Your task to perform on an android device: When is my next meeting? Image 0: 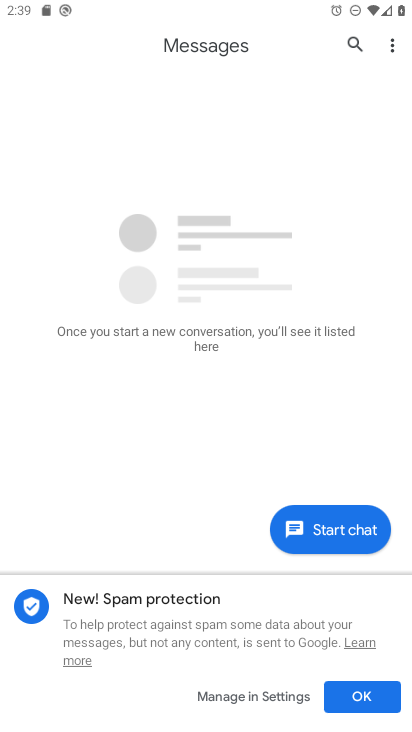
Step 0: press home button
Your task to perform on an android device: When is my next meeting? Image 1: 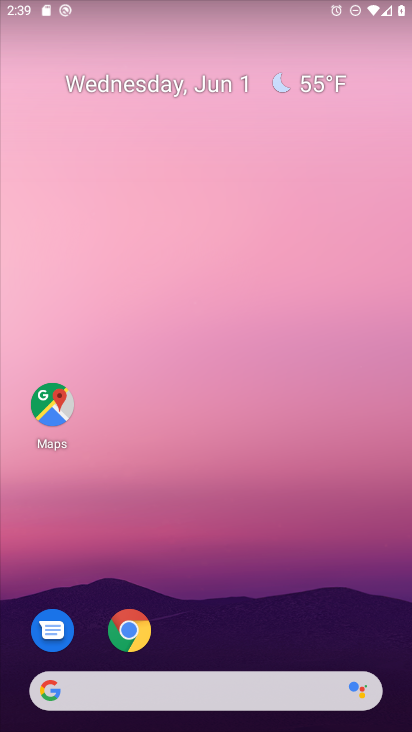
Step 1: drag from (325, 650) to (255, 39)
Your task to perform on an android device: When is my next meeting? Image 2: 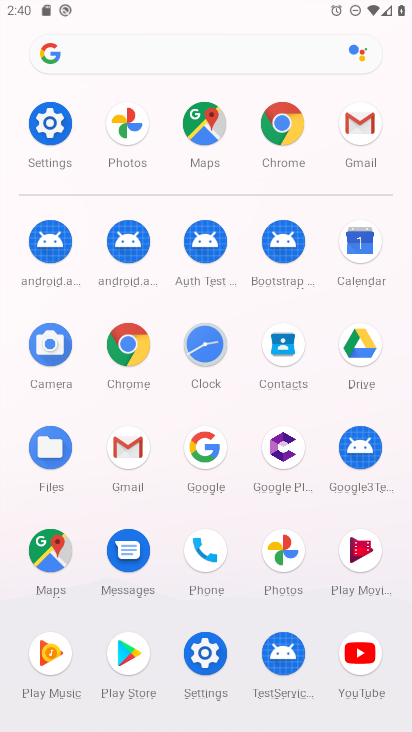
Step 2: click (344, 238)
Your task to perform on an android device: When is my next meeting? Image 3: 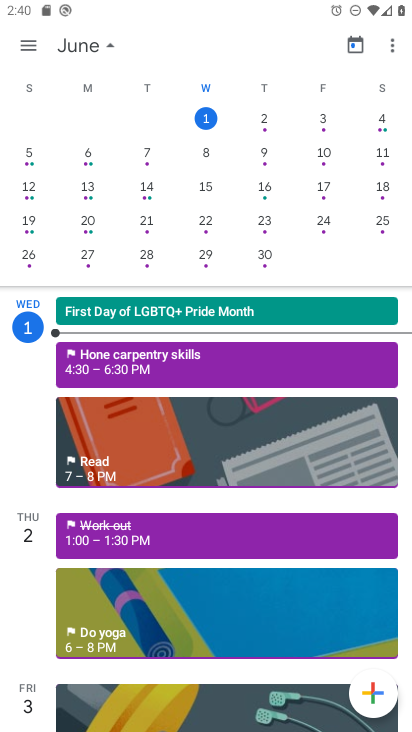
Step 3: click (202, 114)
Your task to perform on an android device: When is my next meeting? Image 4: 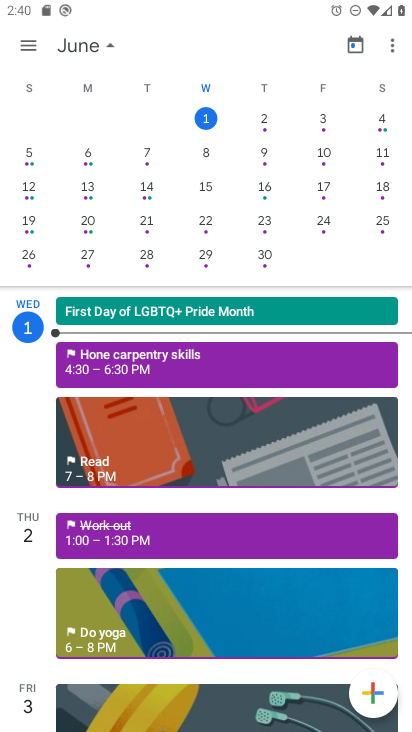
Step 4: task complete